Your task to perform on an android device: turn on bluetooth scan Image 0: 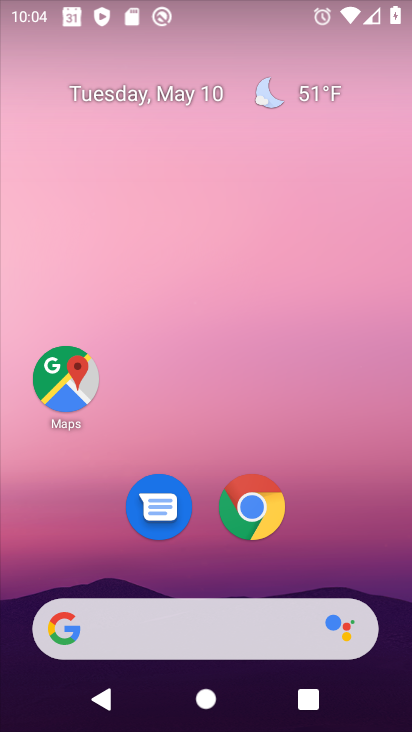
Step 0: drag from (187, 572) to (190, 113)
Your task to perform on an android device: turn on bluetooth scan Image 1: 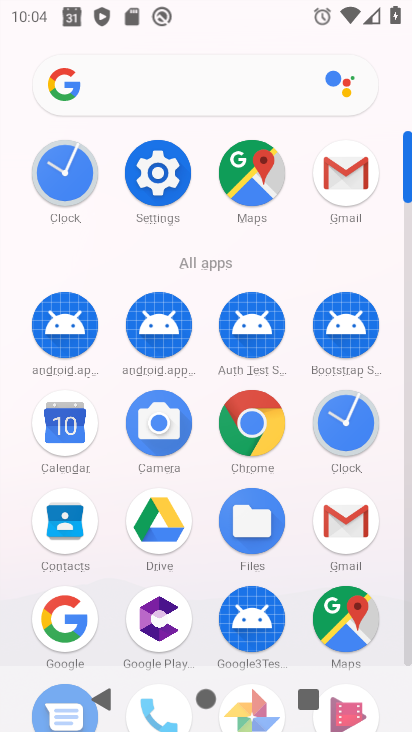
Step 1: click (140, 170)
Your task to perform on an android device: turn on bluetooth scan Image 2: 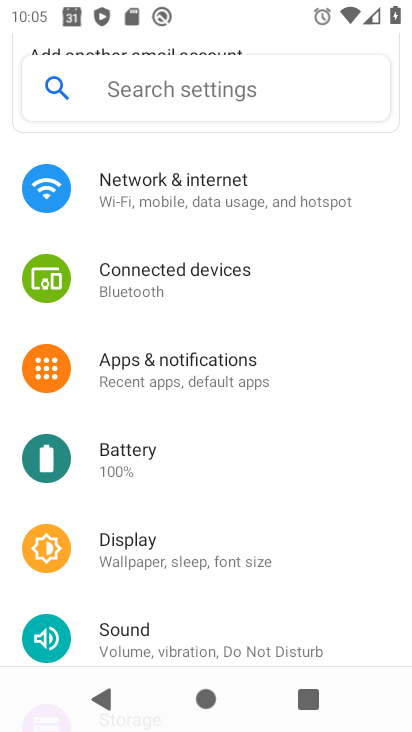
Step 2: drag from (153, 613) to (207, 197)
Your task to perform on an android device: turn on bluetooth scan Image 3: 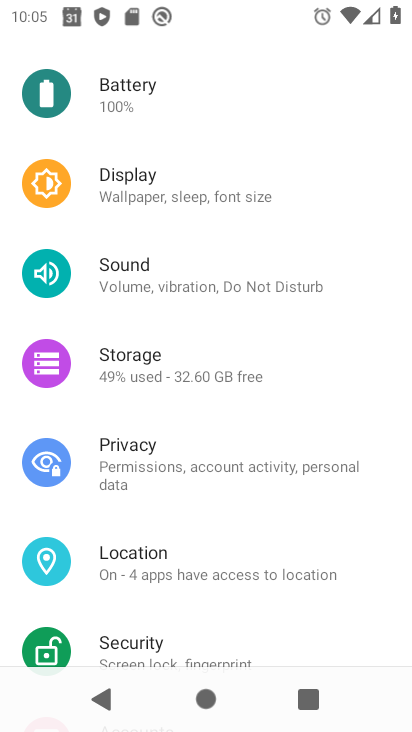
Step 3: click (154, 569)
Your task to perform on an android device: turn on bluetooth scan Image 4: 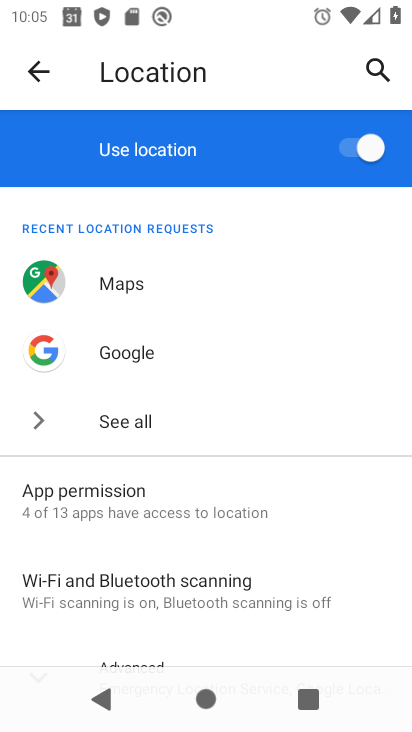
Step 4: click (151, 595)
Your task to perform on an android device: turn on bluetooth scan Image 5: 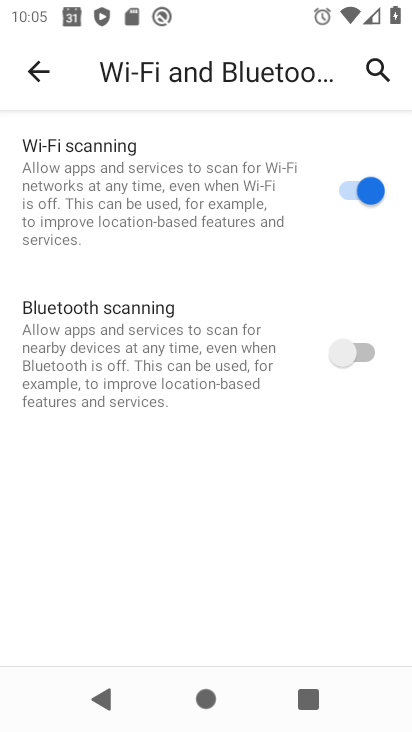
Step 5: click (363, 362)
Your task to perform on an android device: turn on bluetooth scan Image 6: 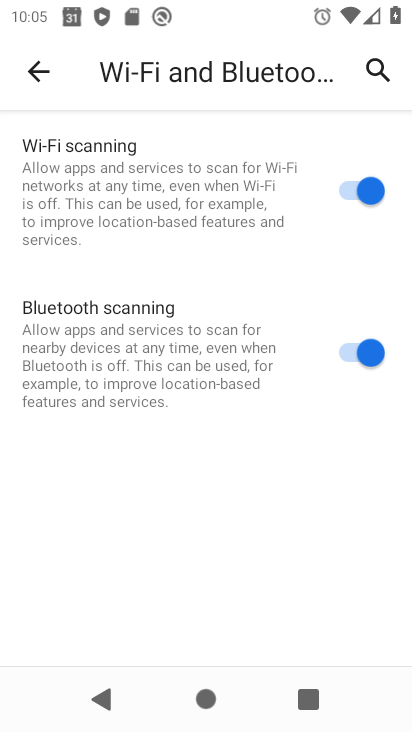
Step 6: task complete